Your task to perform on an android device: Go to network settings Image 0: 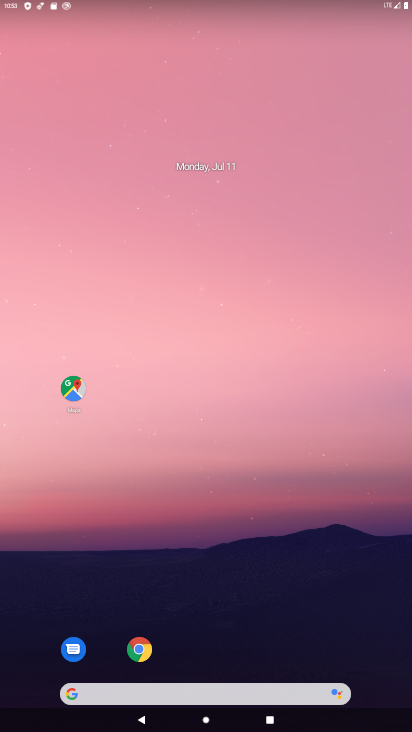
Step 0: drag from (323, 602) to (260, 110)
Your task to perform on an android device: Go to network settings Image 1: 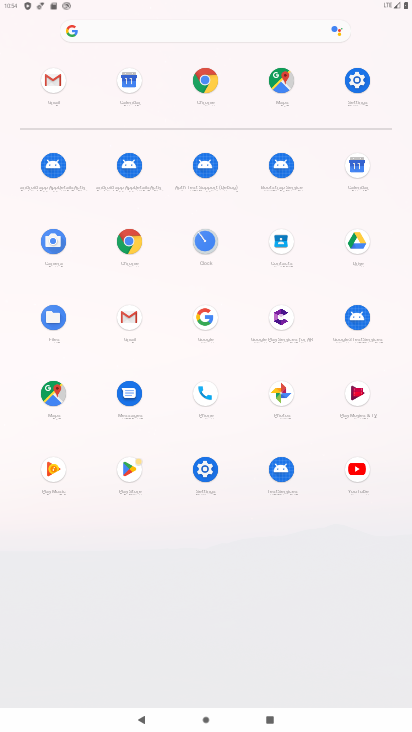
Step 1: click (359, 75)
Your task to perform on an android device: Go to network settings Image 2: 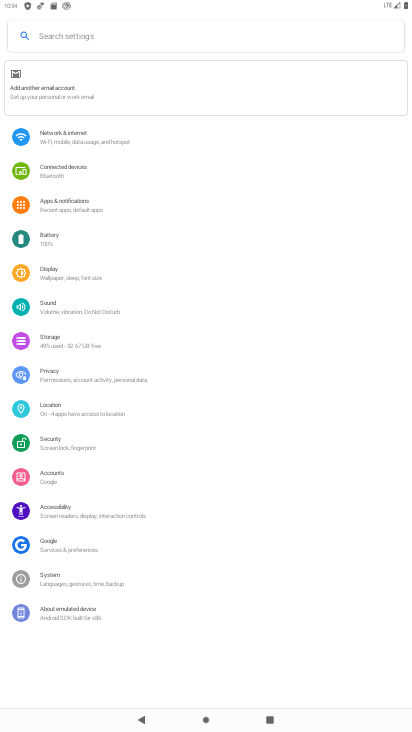
Step 2: click (76, 144)
Your task to perform on an android device: Go to network settings Image 3: 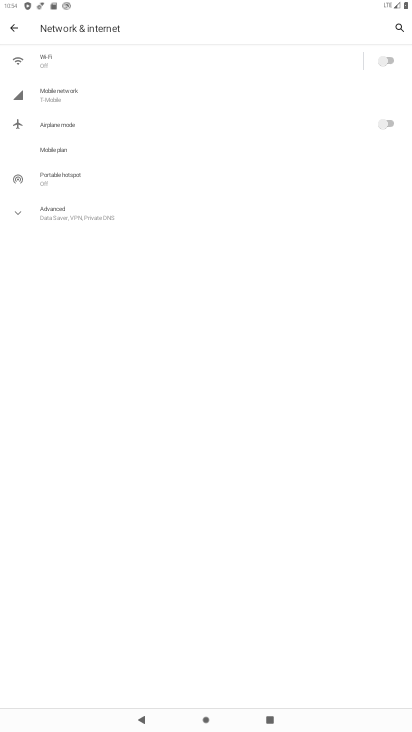
Step 3: click (68, 213)
Your task to perform on an android device: Go to network settings Image 4: 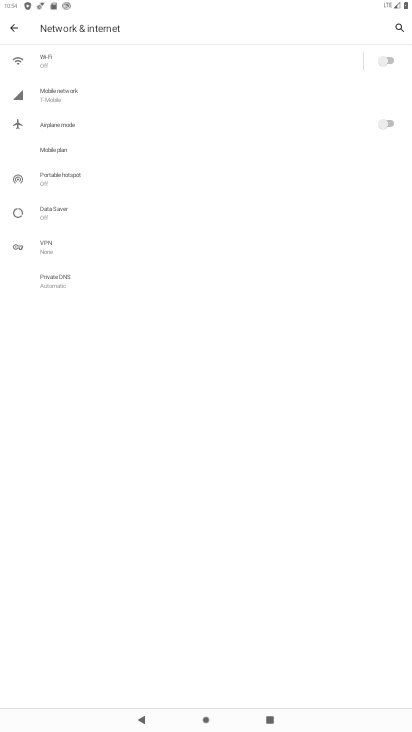
Step 4: task complete